Your task to perform on an android device: add a contact Image 0: 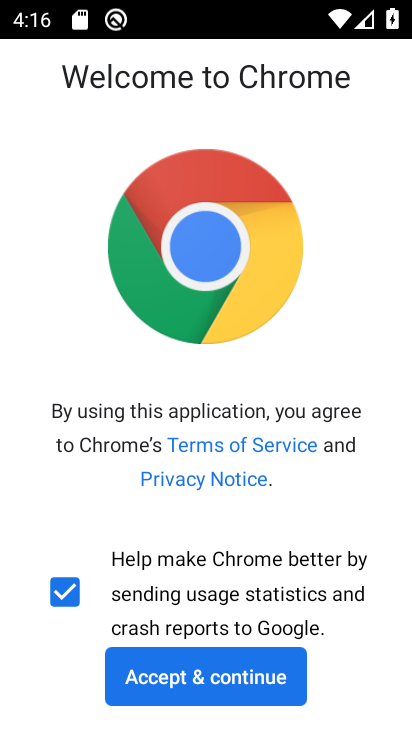
Step 0: press home button
Your task to perform on an android device: add a contact Image 1: 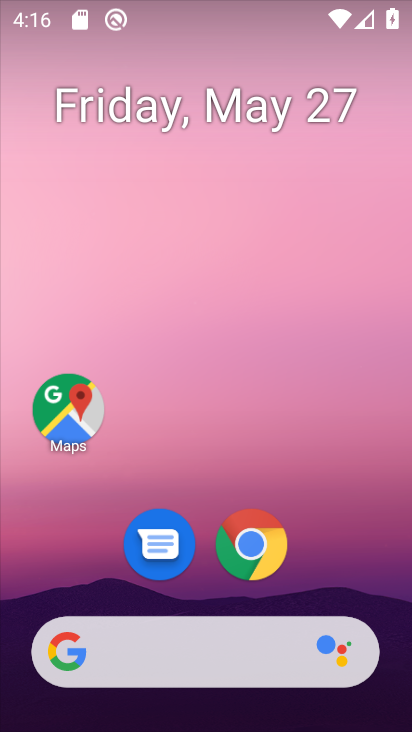
Step 1: drag from (90, 612) to (238, 111)
Your task to perform on an android device: add a contact Image 2: 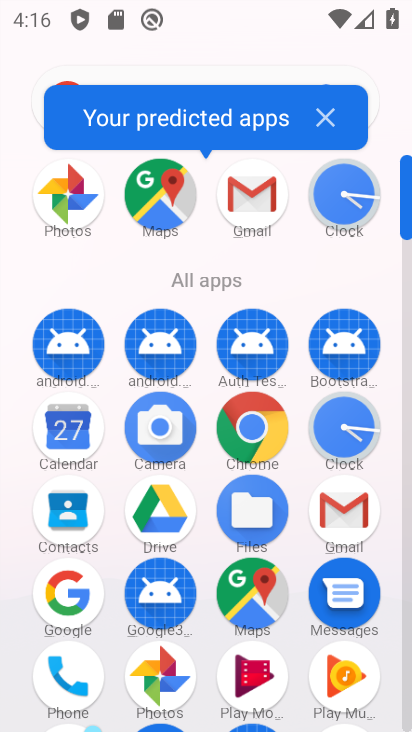
Step 2: click (72, 510)
Your task to perform on an android device: add a contact Image 3: 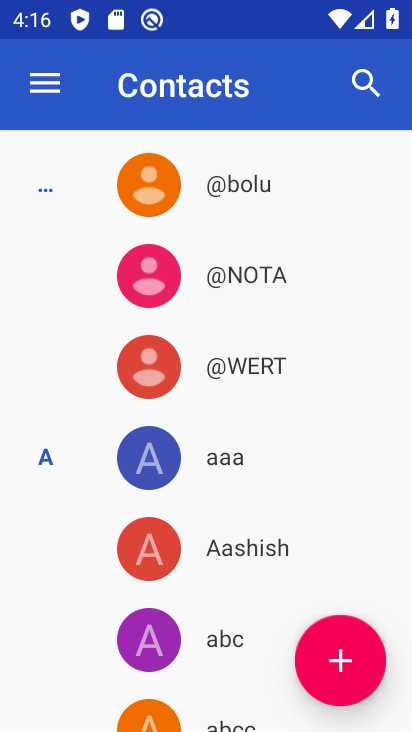
Step 3: click (360, 677)
Your task to perform on an android device: add a contact Image 4: 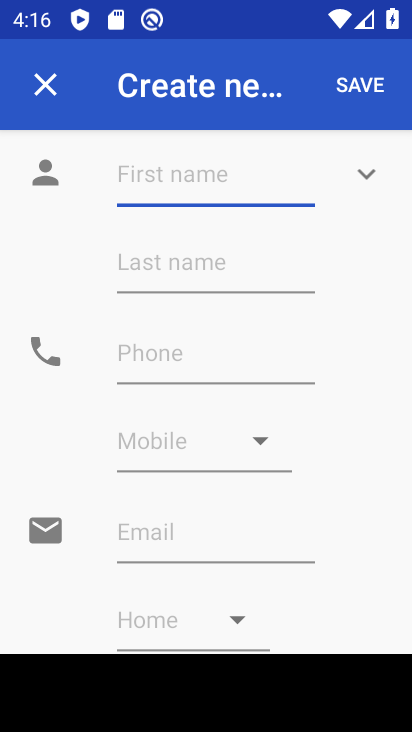
Step 4: type "jijjj"
Your task to perform on an android device: add a contact Image 5: 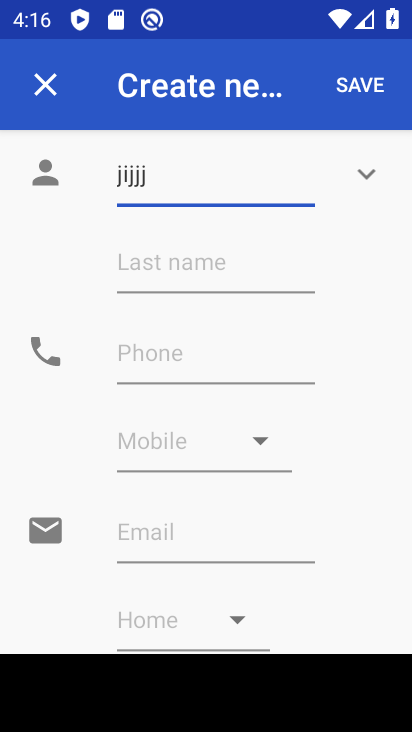
Step 5: click (195, 369)
Your task to perform on an android device: add a contact Image 6: 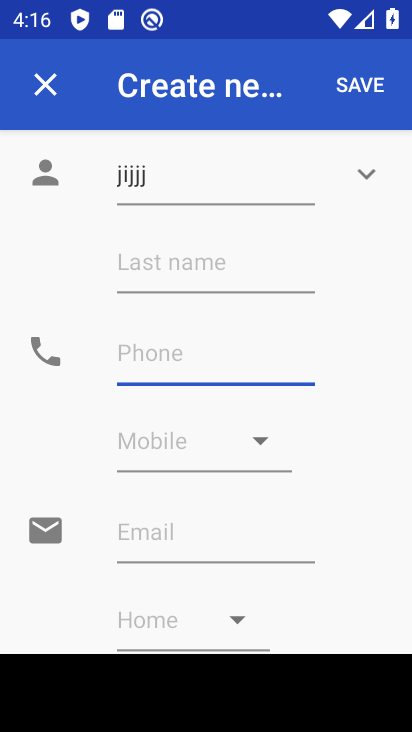
Step 6: type "9899966677"
Your task to perform on an android device: add a contact Image 7: 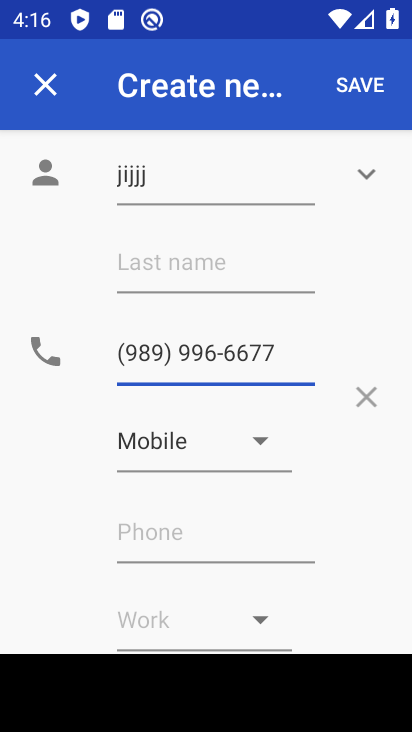
Step 7: click (394, 97)
Your task to perform on an android device: add a contact Image 8: 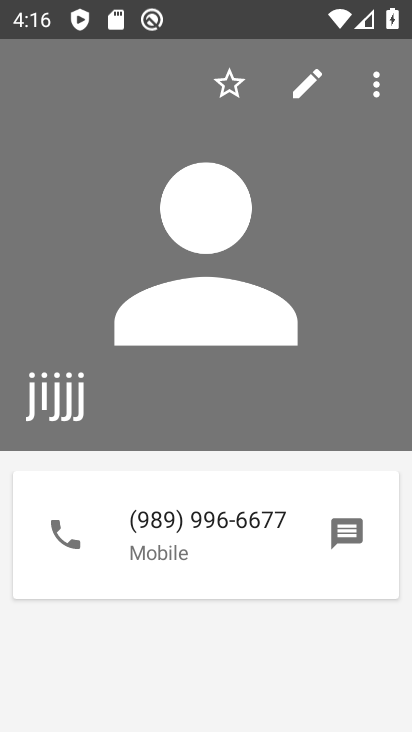
Step 8: task complete